Your task to perform on an android device: Open calendar and show me the third week of next month Image 0: 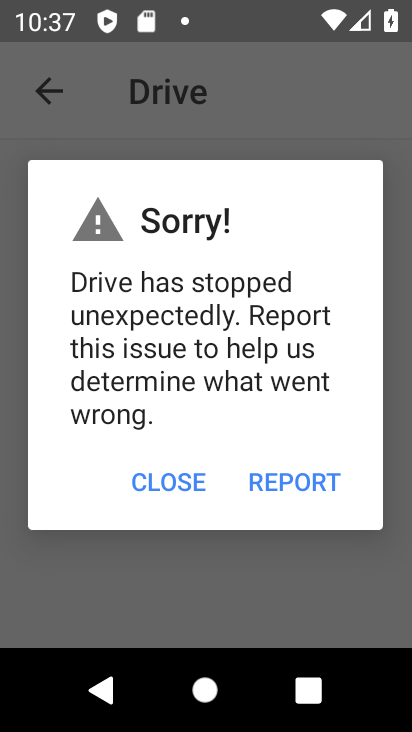
Step 0: press home button
Your task to perform on an android device: Open calendar and show me the third week of next month Image 1: 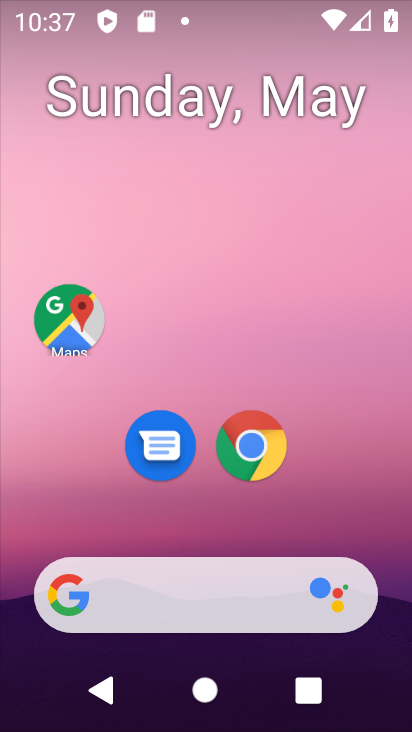
Step 1: drag from (168, 505) to (214, 164)
Your task to perform on an android device: Open calendar and show me the third week of next month Image 2: 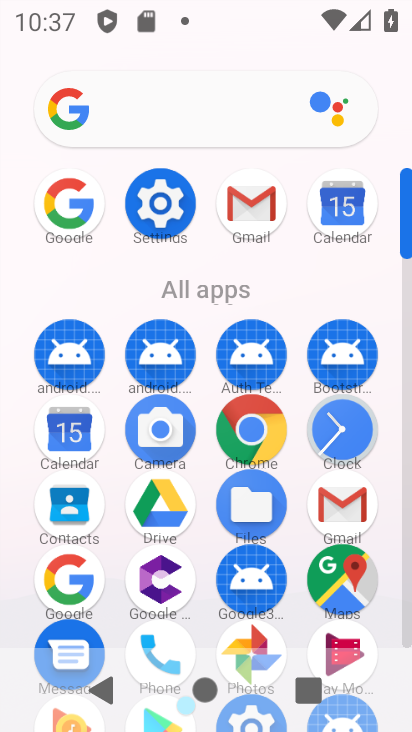
Step 2: click (71, 426)
Your task to perform on an android device: Open calendar and show me the third week of next month Image 3: 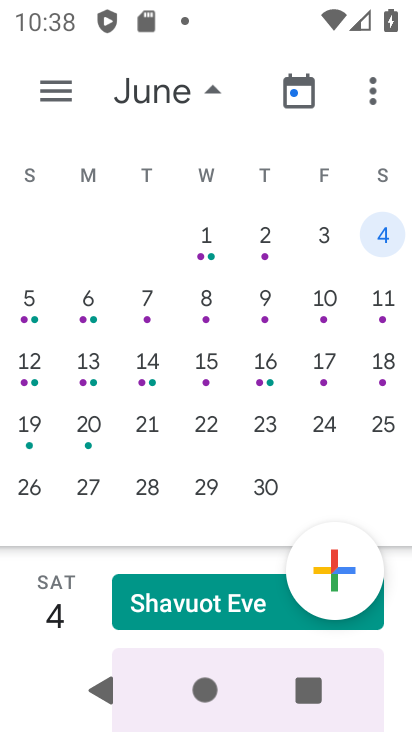
Step 3: drag from (388, 337) to (58, 331)
Your task to perform on an android device: Open calendar and show me the third week of next month Image 4: 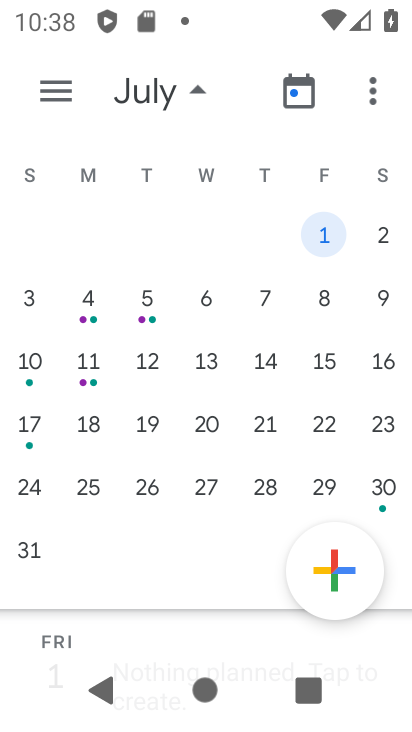
Step 4: click (145, 369)
Your task to perform on an android device: Open calendar and show me the third week of next month Image 5: 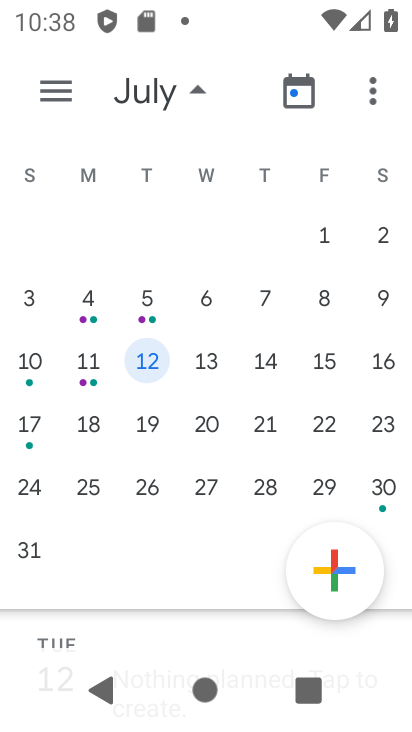
Step 5: click (42, 363)
Your task to perform on an android device: Open calendar and show me the third week of next month Image 6: 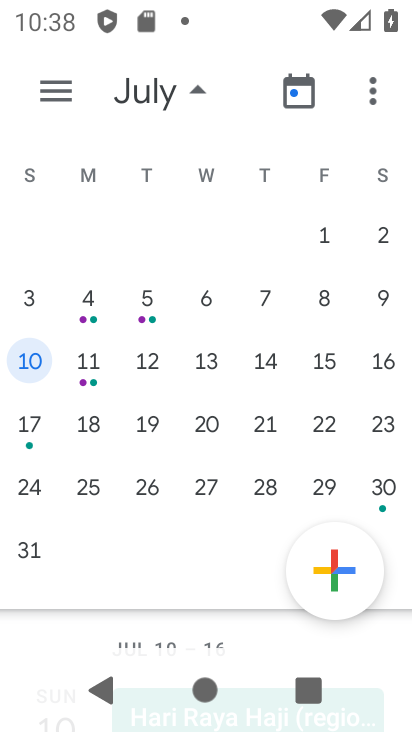
Step 6: click (95, 371)
Your task to perform on an android device: Open calendar and show me the third week of next month Image 7: 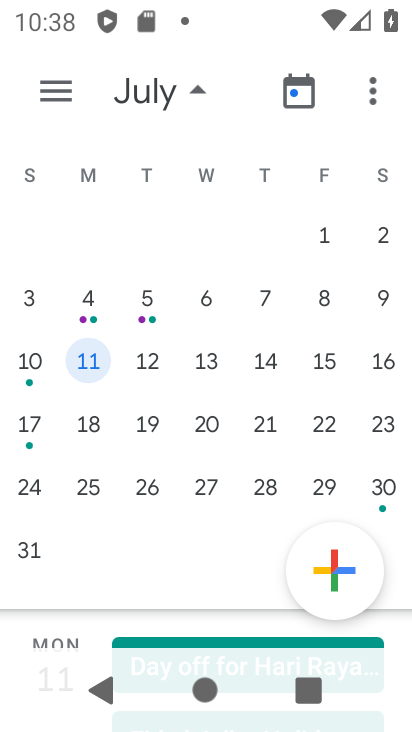
Step 7: click (205, 366)
Your task to perform on an android device: Open calendar and show me the third week of next month Image 8: 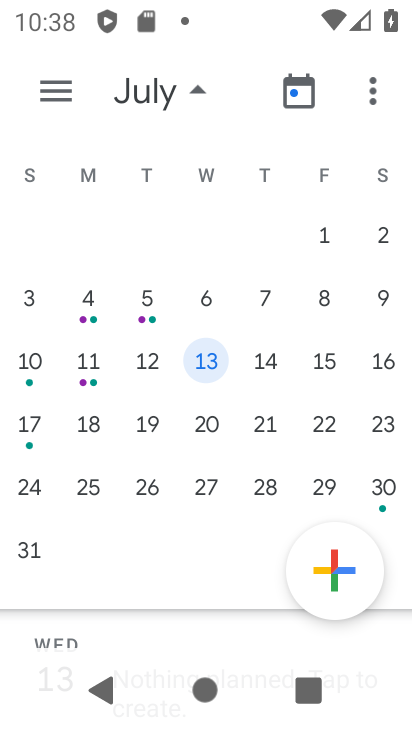
Step 8: click (270, 361)
Your task to perform on an android device: Open calendar and show me the third week of next month Image 9: 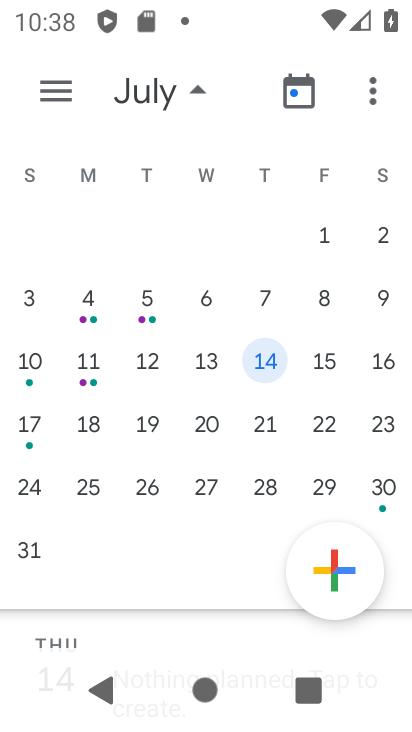
Step 9: click (320, 365)
Your task to perform on an android device: Open calendar and show me the third week of next month Image 10: 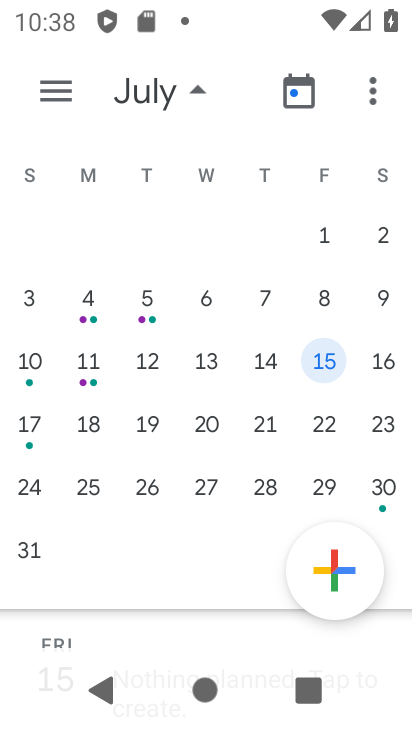
Step 10: click (377, 371)
Your task to perform on an android device: Open calendar and show me the third week of next month Image 11: 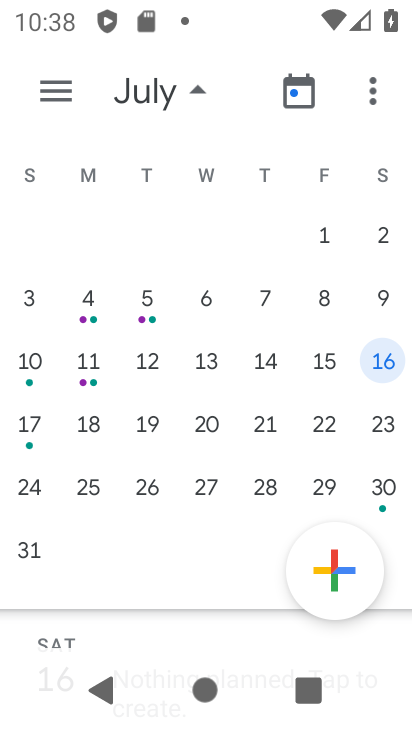
Step 11: task complete